Your task to perform on an android device: turn on translation in the chrome app Image 0: 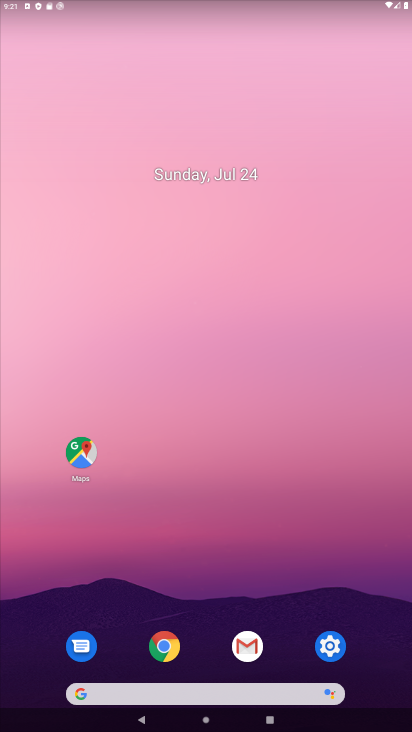
Step 0: click (167, 649)
Your task to perform on an android device: turn on translation in the chrome app Image 1: 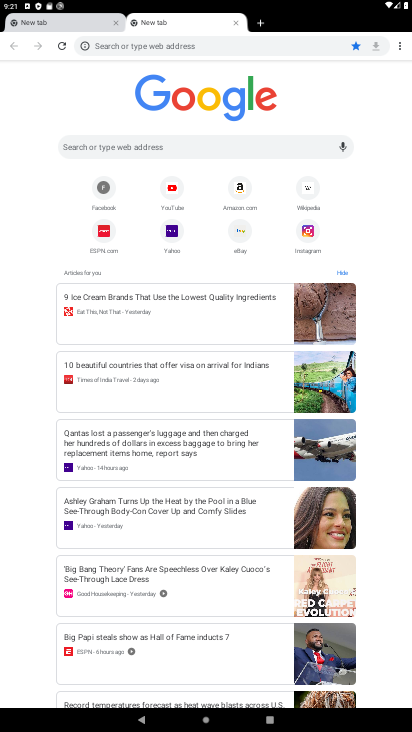
Step 1: click (408, 44)
Your task to perform on an android device: turn on translation in the chrome app Image 2: 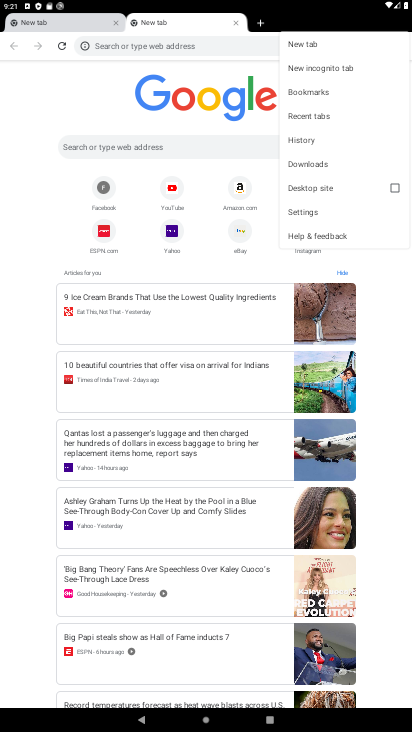
Step 2: click (301, 209)
Your task to perform on an android device: turn on translation in the chrome app Image 3: 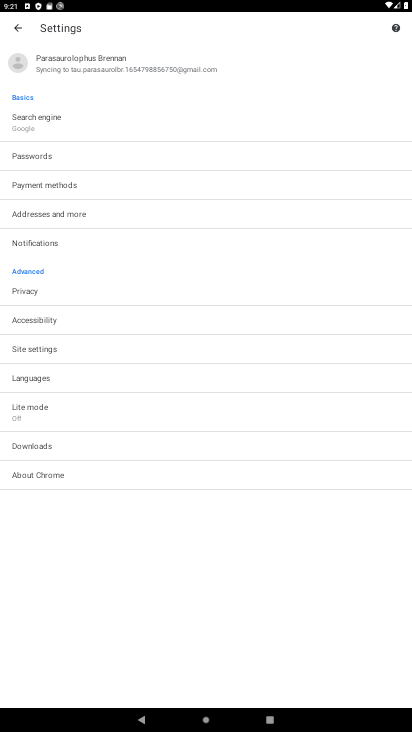
Step 3: click (51, 379)
Your task to perform on an android device: turn on translation in the chrome app Image 4: 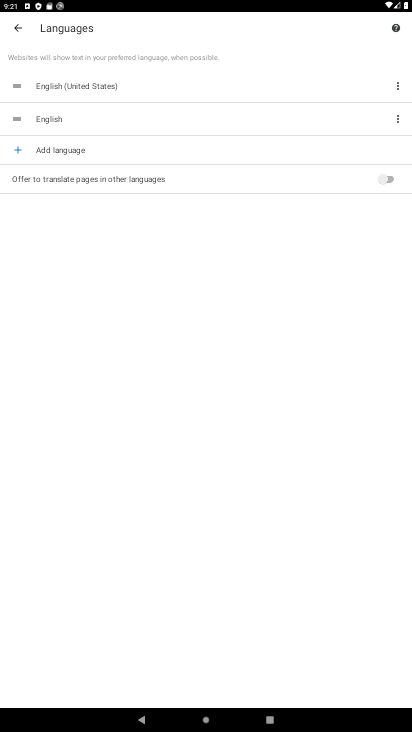
Step 4: click (222, 181)
Your task to perform on an android device: turn on translation in the chrome app Image 5: 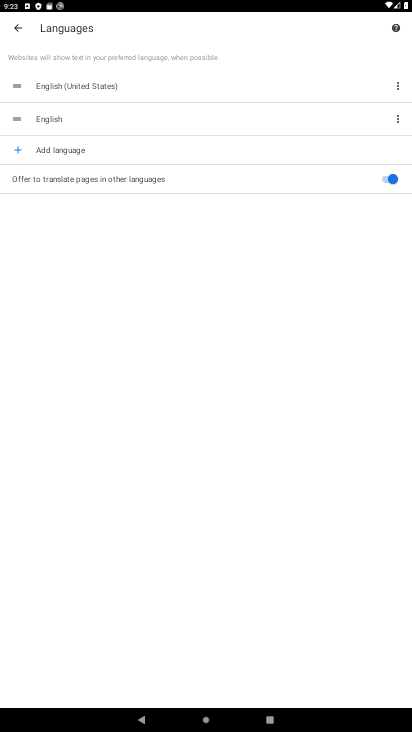
Step 5: task complete